Your task to perform on an android device: Search for seafood restaurants on Google Maps Image 0: 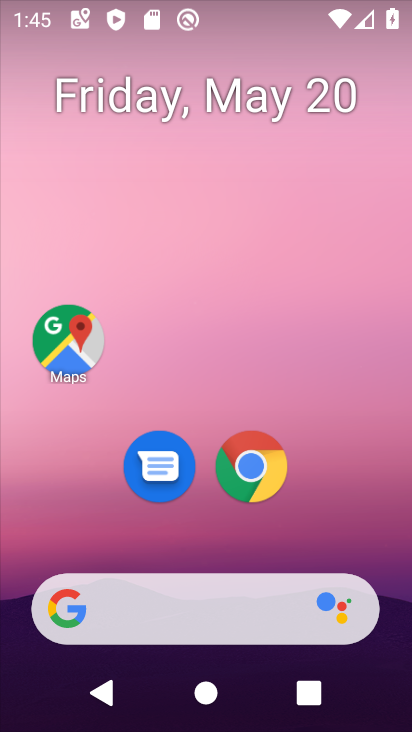
Step 0: click (77, 324)
Your task to perform on an android device: Search for seafood restaurants on Google Maps Image 1: 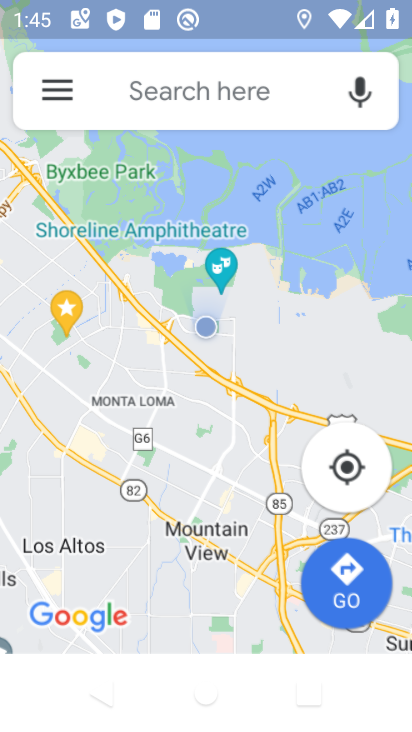
Step 1: click (251, 74)
Your task to perform on an android device: Search for seafood restaurants on Google Maps Image 2: 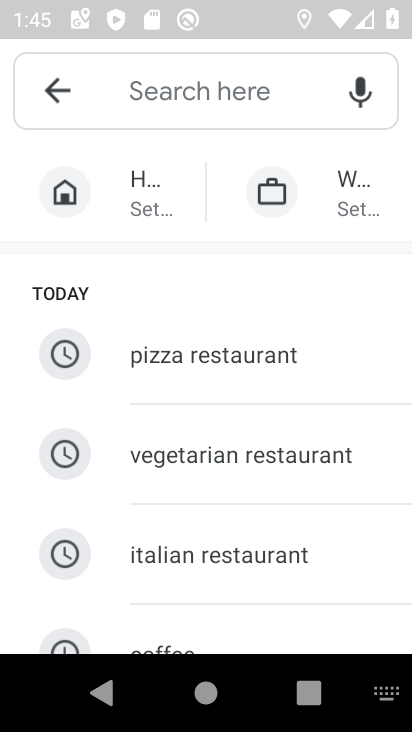
Step 2: drag from (193, 365) to (192, 112)
Your task to perform on an android device: Search for seafood restaurants on Google Maps Image 3: 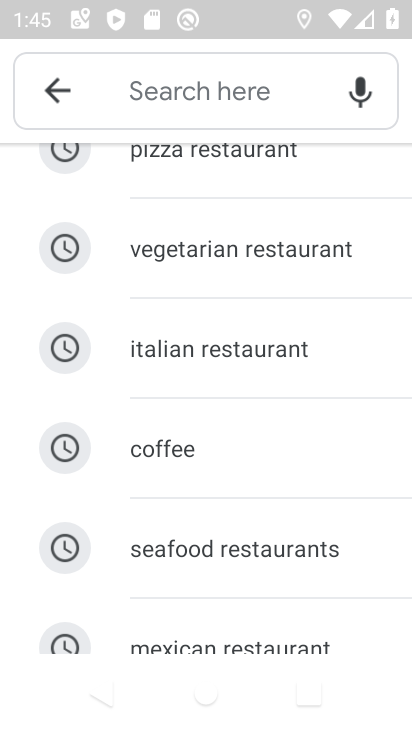
Step 3: click (197, 535)
Your task to perform on an android device: Search for seafood restaurants on Google Maps Image 4: 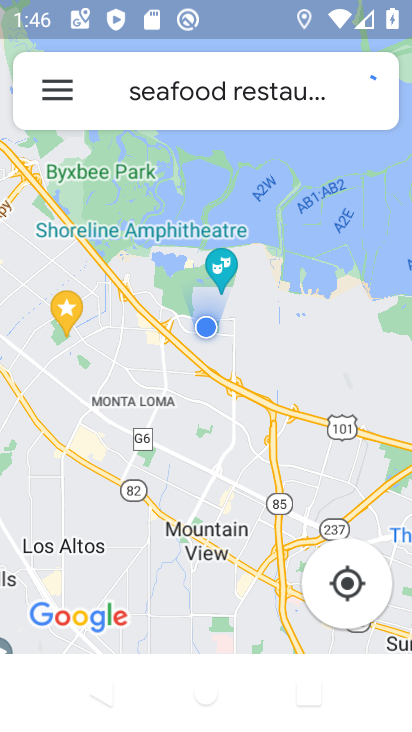
Step 4: task complete